Your task to perform on an android device: turn on the 12-hour format for clock Image 0: 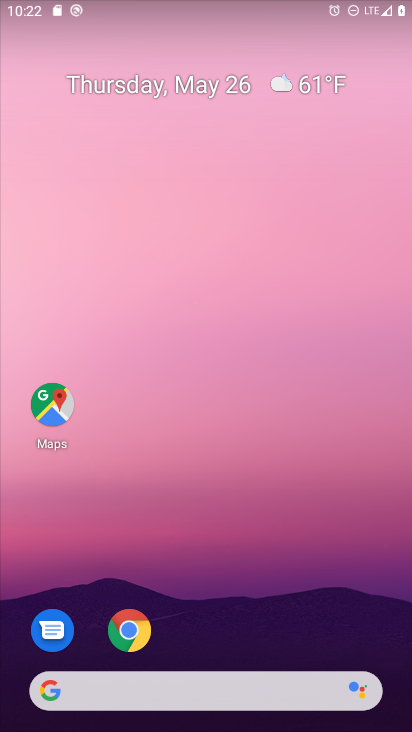
Step 0: drag from (187, 663) to (108, 66)
Your task to perform on an android device: turn on the 12-hour format for clock Image 1: 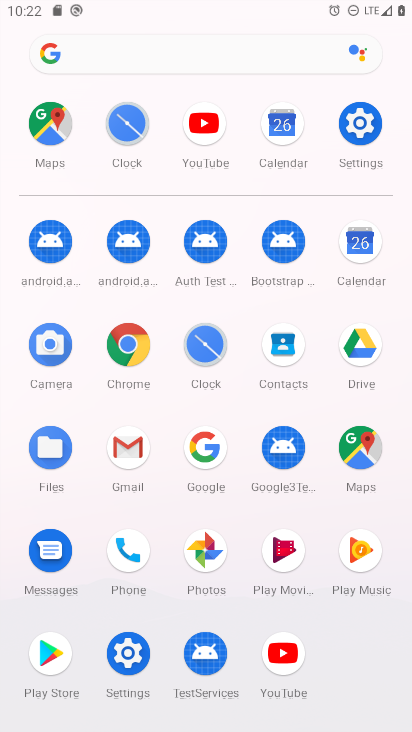
Step 1: click (203, 355)
Your task to perform on an android device: turn on the 12-hour format for clock Image 2: 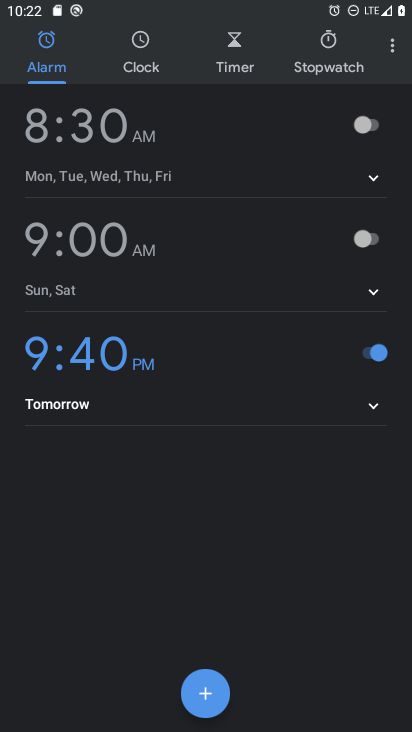
Step 2: click (394, 40)
Your task to perform on an android device: turn on the 12-hour format for clock Image 3: 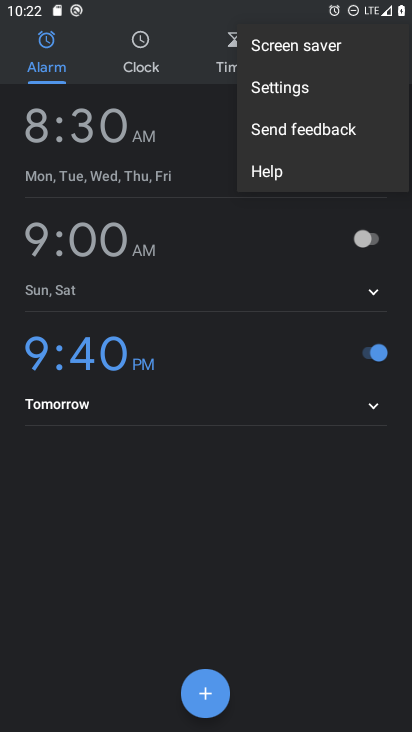
Step 3: click (283, 94)
Your task to perform on an android device: turn on the 12-hour format for clock Image 4: 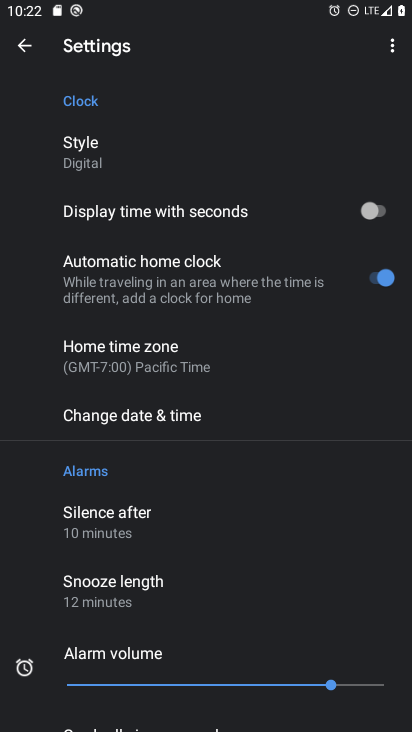
Step 4: click (152, 435)
Your task to perform on an android device: turn on the 12-hour format for clock Image 5: 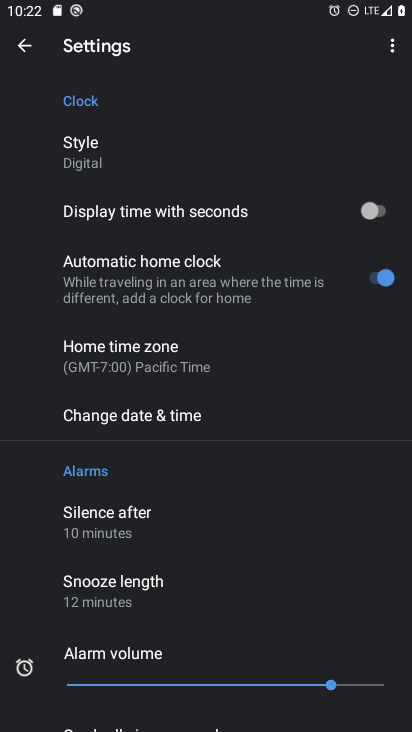
Step 5: click (152, 435)
Your task to perform on an android device: turn on the 12-hour format for clock Image 6: 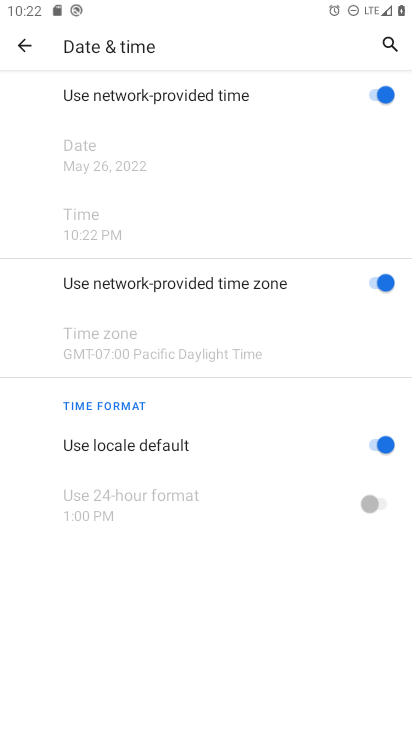
Step 6: task complete